Your task to perform on an android device: turn pop-ups off in chrome Image 0: 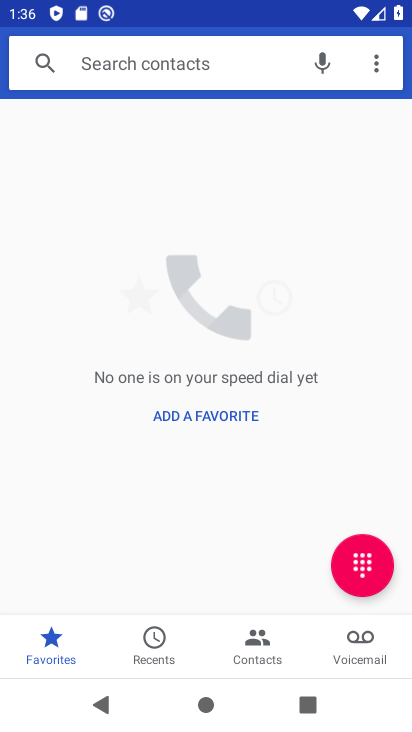
Step 0: press home button
Your task to perform on an android device: turn pop-ups off in chrome Image 1: 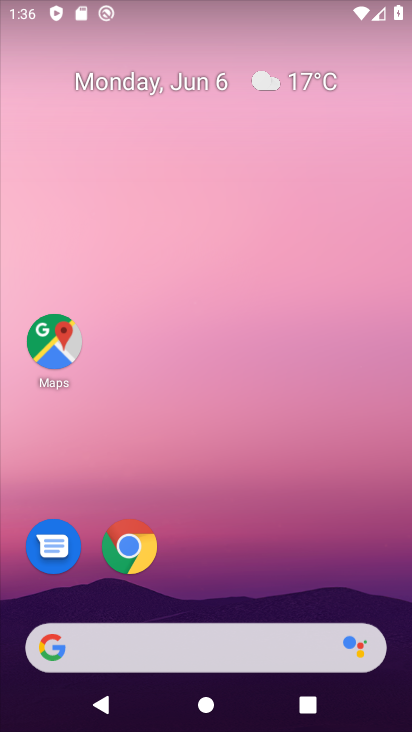
Step 1: drag from (305, 500) to (209, 121)
Your task to perform on an android device: turn pop-ups off in chrome Image 2: 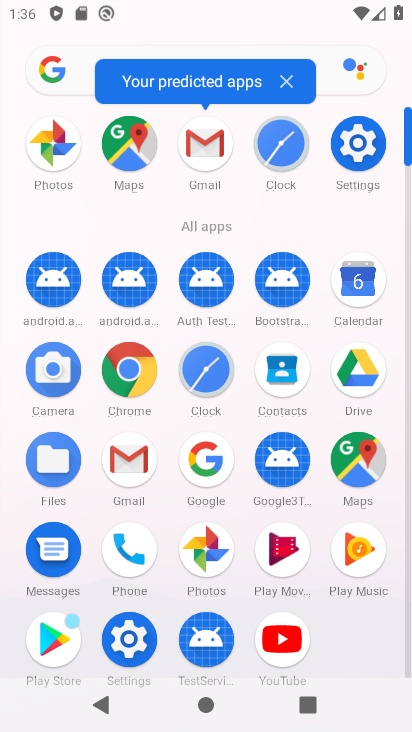
Step 2: click (137, 365)
Your task to perform on an android device: turn pop-ups off in chrome Image 3: 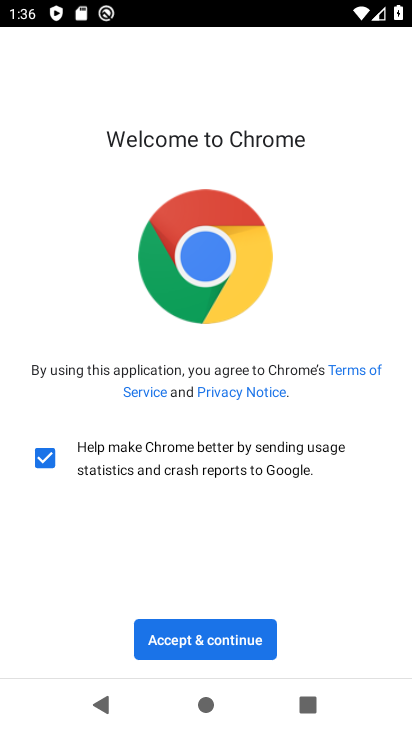
Step 3: click (235, 640)
Your task to perform on an android device: turn pop-ups off in chrome Image 4: 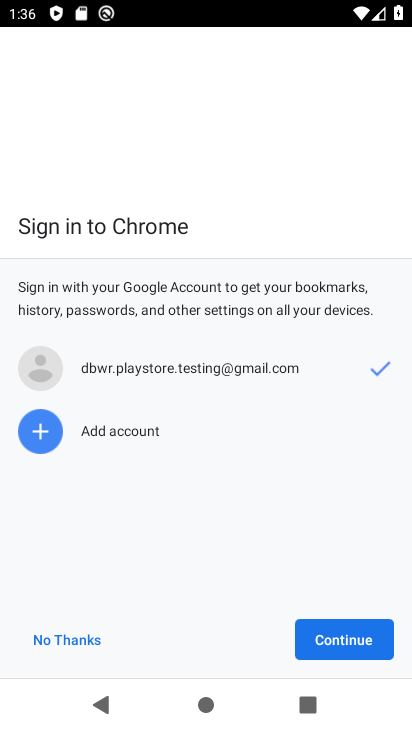
Step 4: click (325, 643)
Your task to perform on an android device: turn pop-ups off in chrome Image 5: 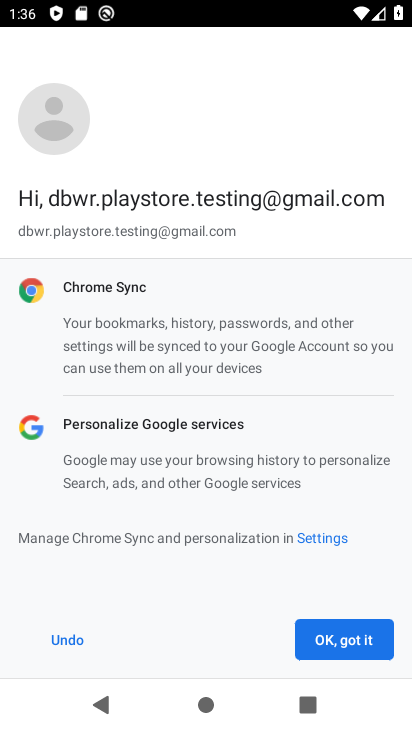
Step 5: click (323, 644)
Your task to perform on an android device: turn pop-ups off in chrome Image 6: 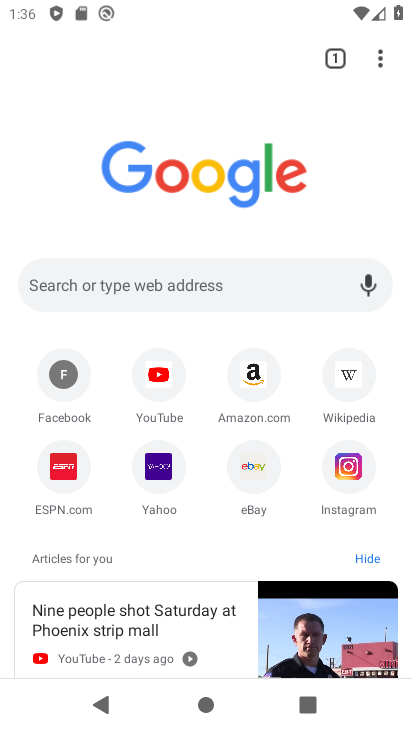
Step 6: drag from (379, 55) to (247, 504)
Your task to perform on an android device: turn pop-ups off in chrome Image 7: 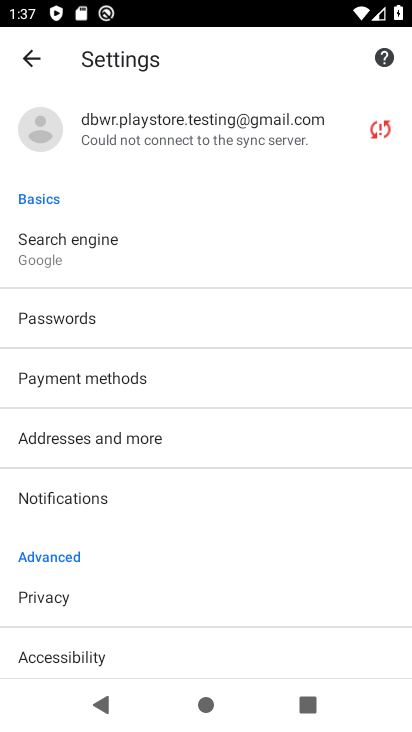
Step 7: drag from (203, 602) to (241, 216)
Your task to perform on an android device: turn pop-ups off in chrome Image 8: 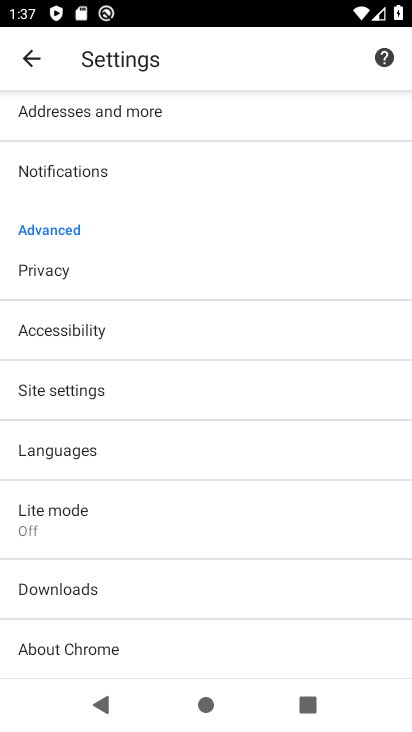
Step 8: click (129, 383)
Your task to perform on an android device: turn pop-ups off in chrome Image 9: 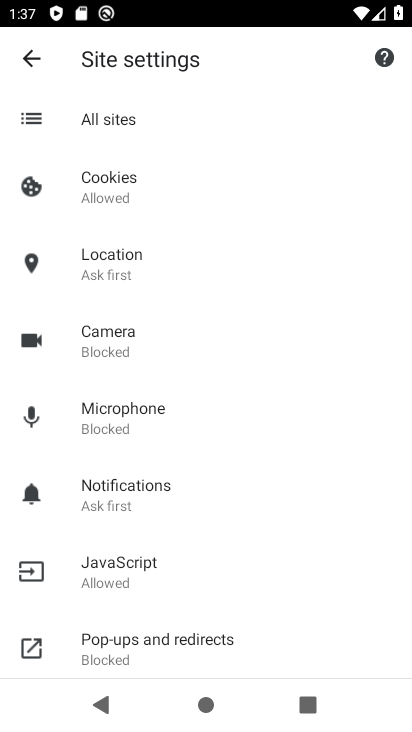
Step 9: click (133, 661)
Your task to perform on an android device: turn pop-ups off in chrome Image 10: 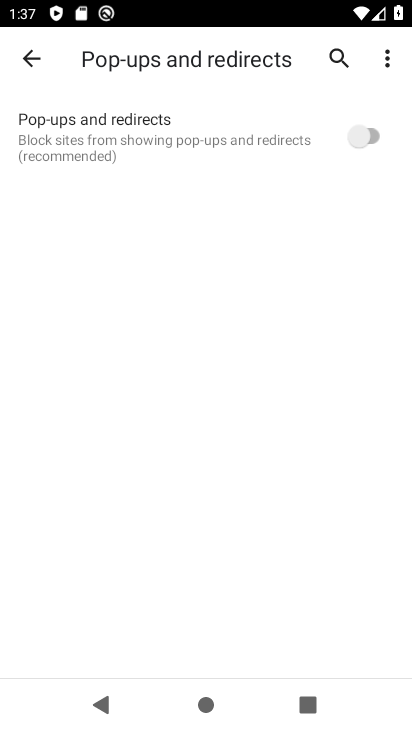
Step 10: task complete